Your task to perform on an android device: toggle wifi Image 0: 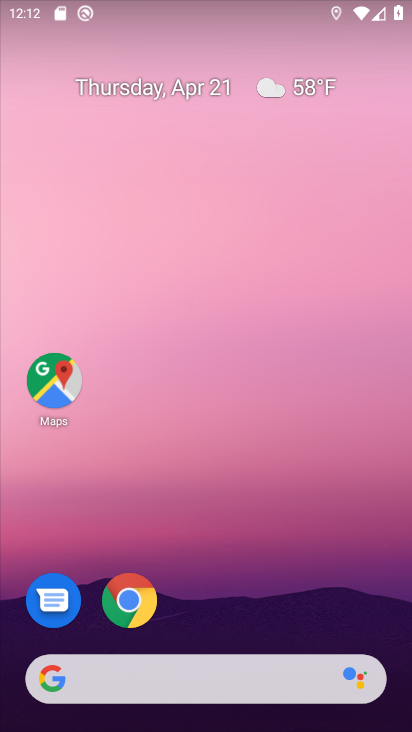
Step 0: drag from (295, 510) to (315, 106)
Your task to perform on an android device: toggle wifi Image 1: 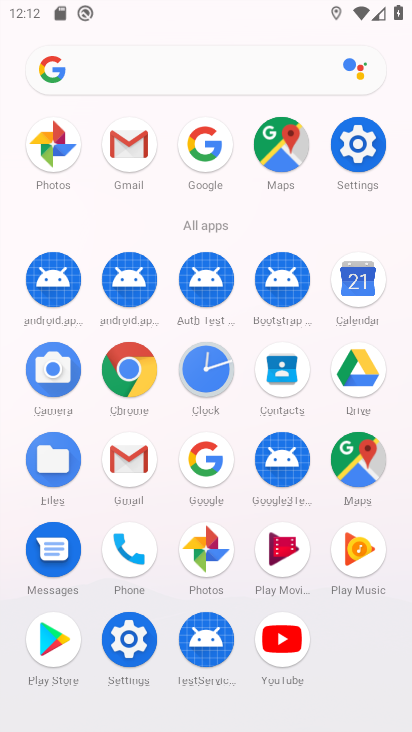
Step 1: click (360, 142)
Your task to perform on an android device: toggle wifi Image 2: 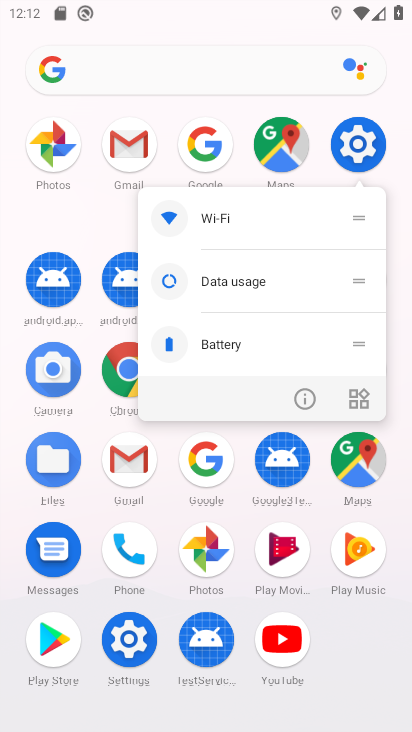
Step 2: click (360, 143)
Your task to perform on an android device: toggle wifi Image 3: 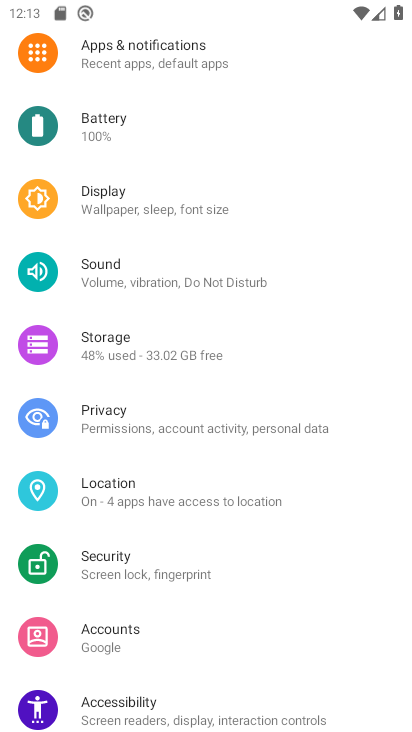
Step 3: drag from (239, 163) to (236, 587)
Your task to perform on an android device: toggle wifi Image 4: 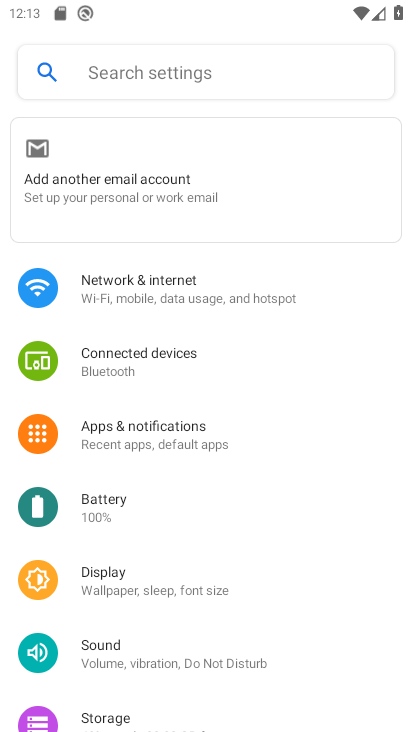
Step 4: click (248, 291)
Your task to perform on an android device: toggle wifi Image 5: 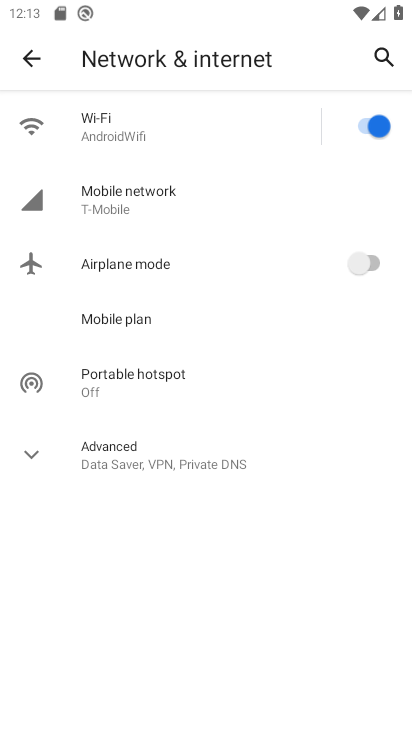
Step 5: click (357, 123)
Your task to perform on an android device: toggle wifi Image 6: 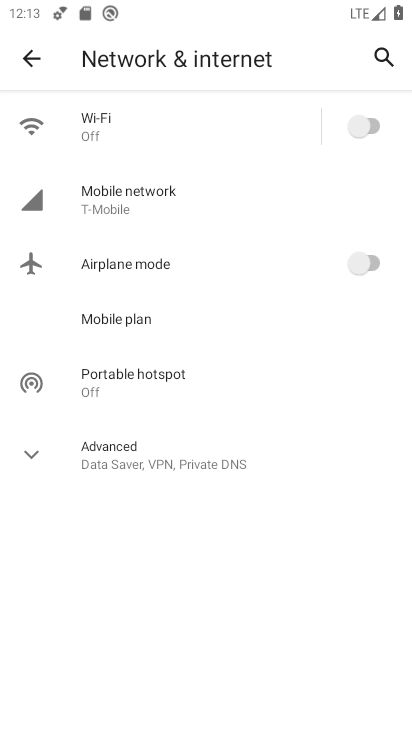
Step 6: task complete